Your task to perform on an android device: open chrome and create a bookmark for the current page Image 0: 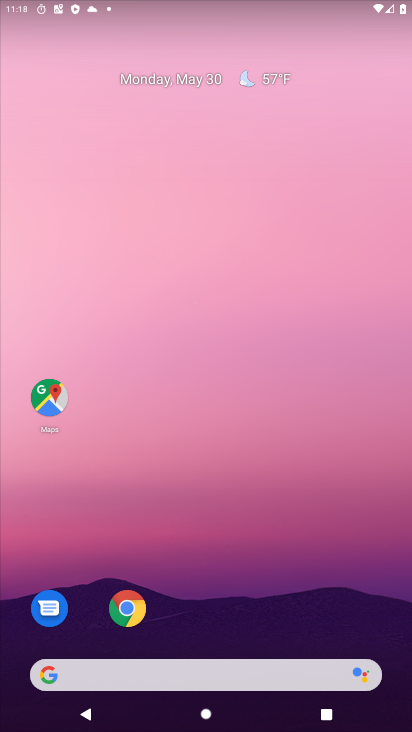
Step 0: drag from (357, 562) to (179, 41)
Your task to perform on an android device: open chrome and create a bookmark for the current page Image 1: 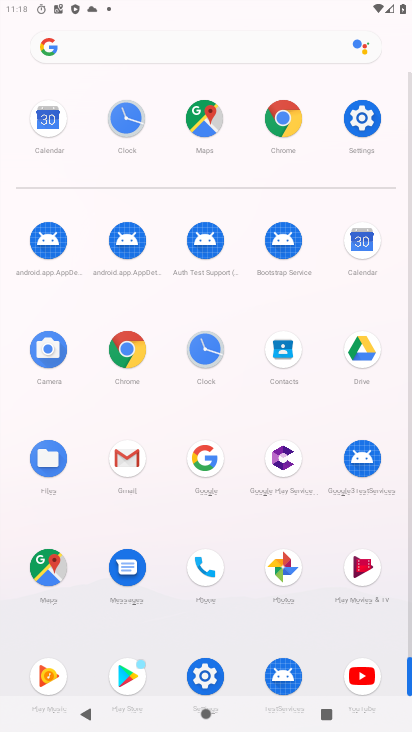
Step 1: click (124, 346)
Your task to perform on an android device: open chrome and create a bookmark for the current page Image 2: 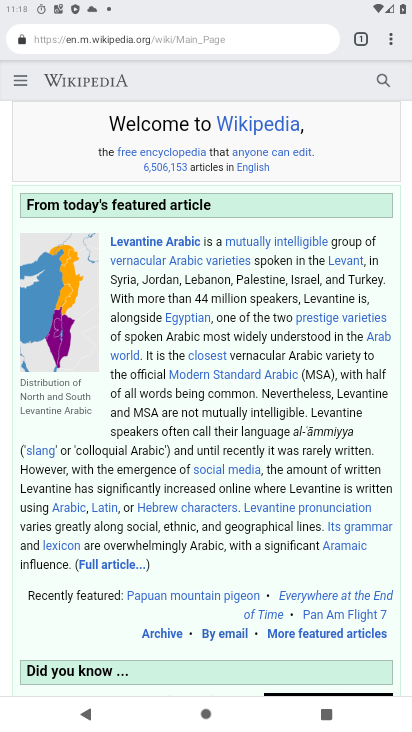
Step 2: task complete